Your task to perform on an android device: check battery use Image 0: 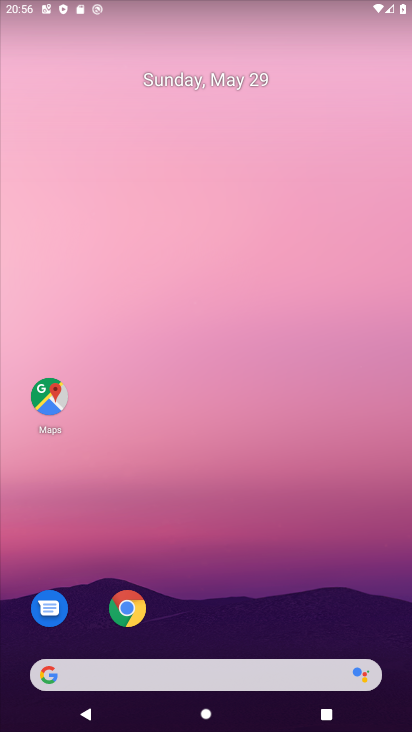
Step 0: drag from (369, 600) to (349, 211)
Your task to perform on an android device: check battery use Image 1: 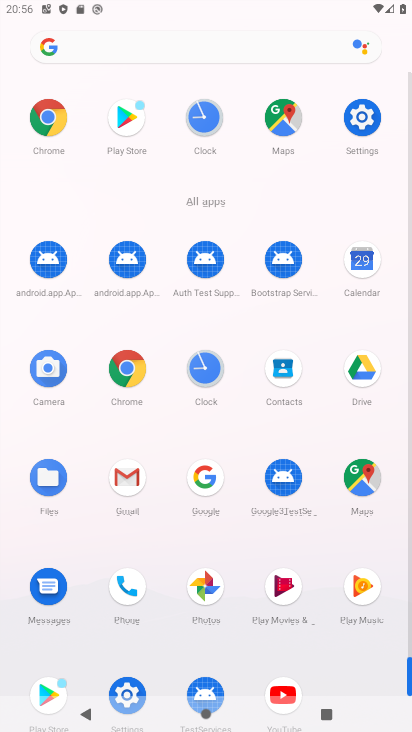
Step 1: click (365, 132)
Your task to perform on an android device: check battery use Image 2: 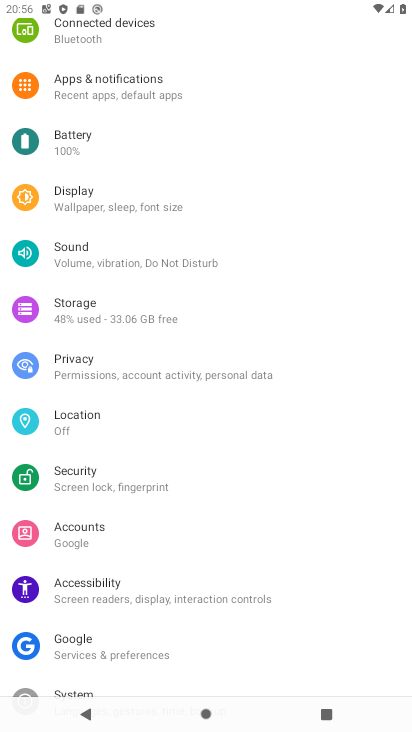
Step 2: drag from (336, 251) to (339, 338)
Your task to perform on an android device: check battery use Image 3: 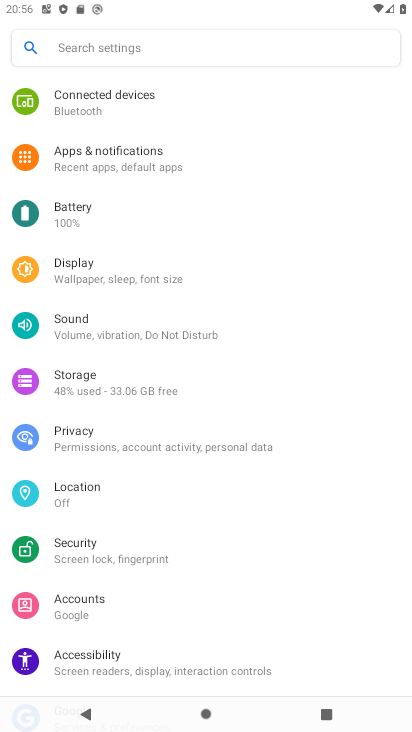
Step 3: drag from (340, 157) to (346, 396)
Your task to perform on an android device: check battery use Image 4: 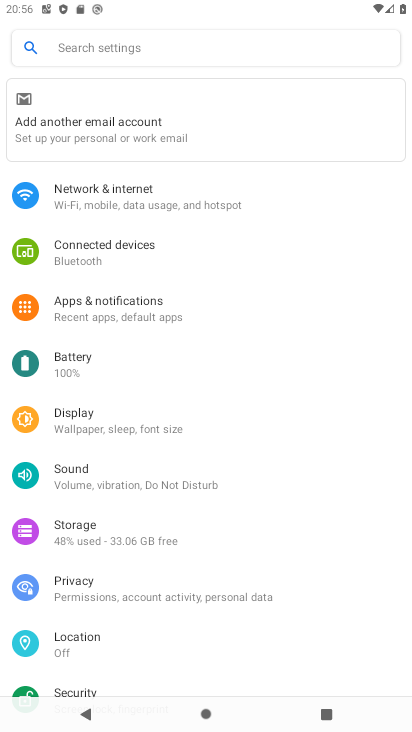
Step 4: drag from (330, 269) to (316, 408)
Your task to perform on an android device: check battery use Image 5: 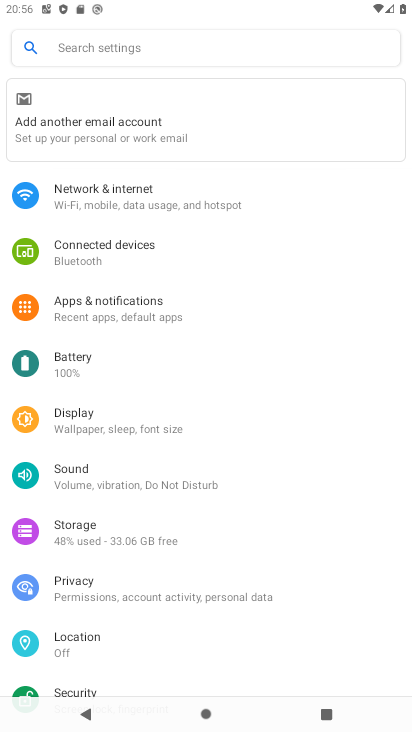
Step 5: click (114, 371)
Your task to perform on an android device: check battery use Image 6: 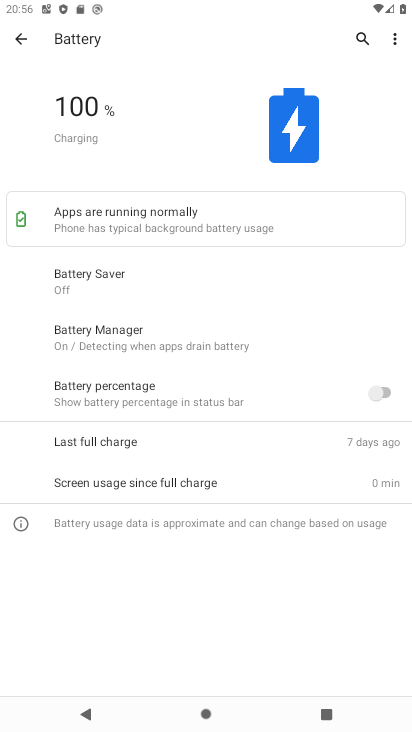
Step 6: click (397, 42)
Your task to perform on an android device: check battery use Image 7: 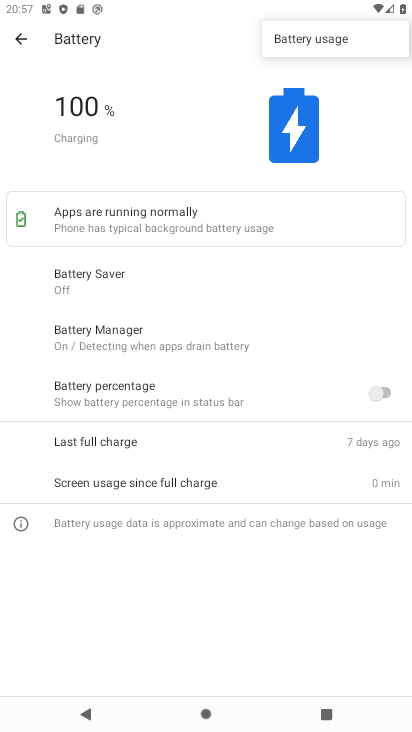
Step 7: click (350, 42)
Your task to perform on an android device: check battery use Image 8: 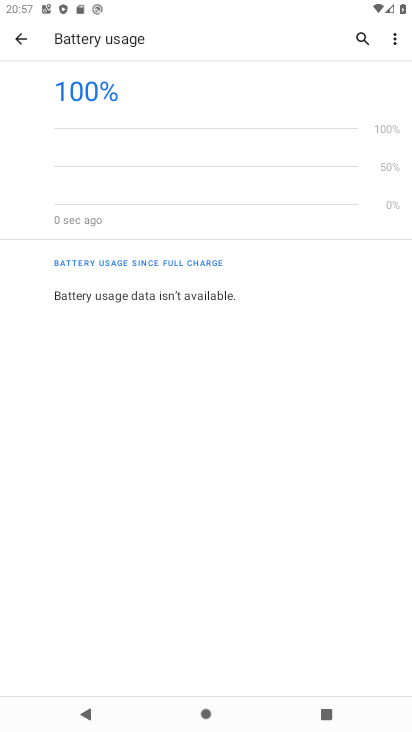
Step 8: task complete